Your task to perform on an android device: Open Yahoo.com Image 0: 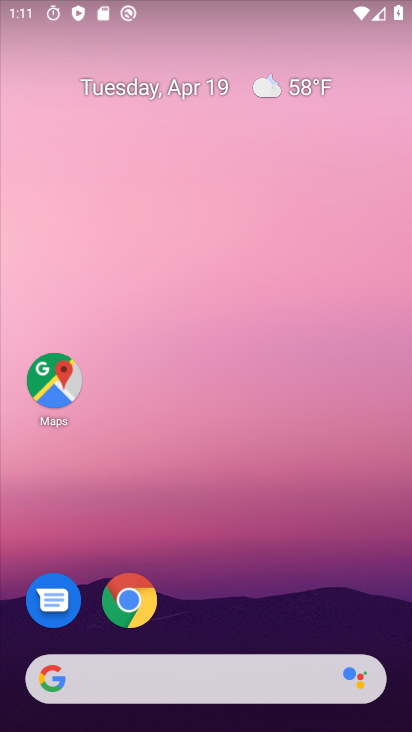
Step 0: drag from (220, 700) to (290, 241)
Your task to perform on an android device: Open Yahoo.com Image 1: 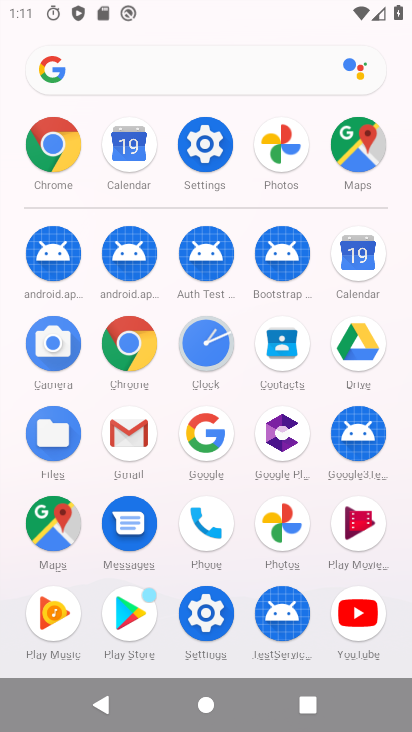
Step 1: click (66, 155)
Your task to perform on an android device: Open Yahoo.com Image 2: 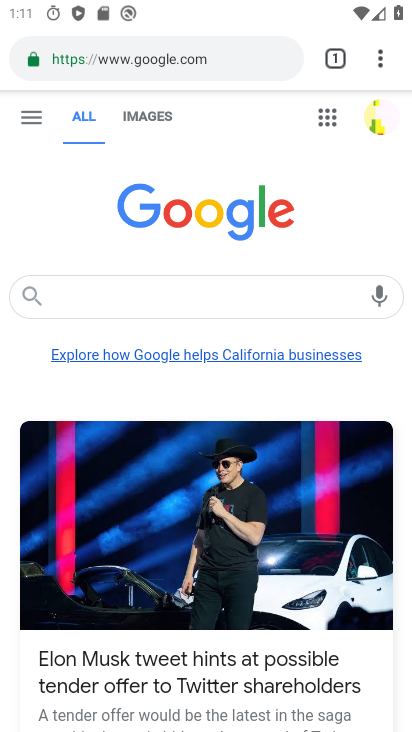
Step 2: click (327, 61)
Your task to perform on an android device: Open Yahoo.com Image 3: 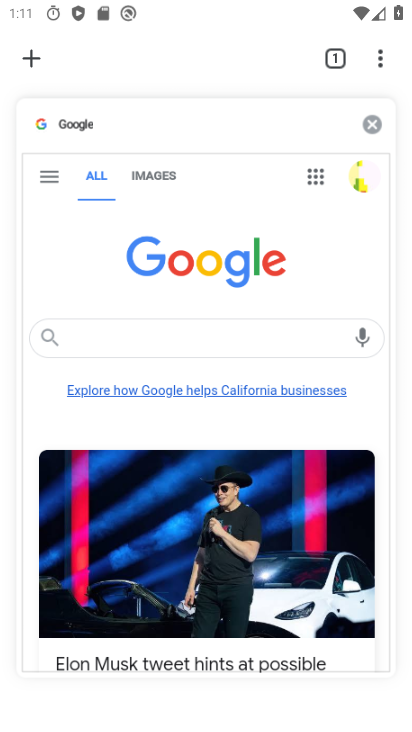
Step 3: click (35, 73)
Your task to perform on an android device: Open Yahoo.com Image 4: 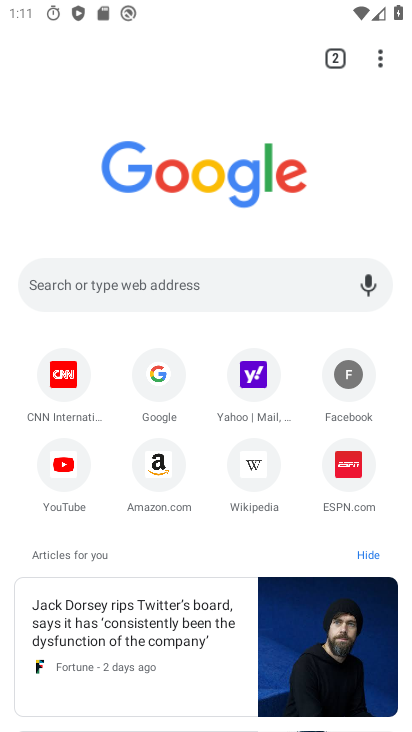
Step 4: click (275, 402)
Your task to perform on an android device: Open Yahoo.com Image 5: 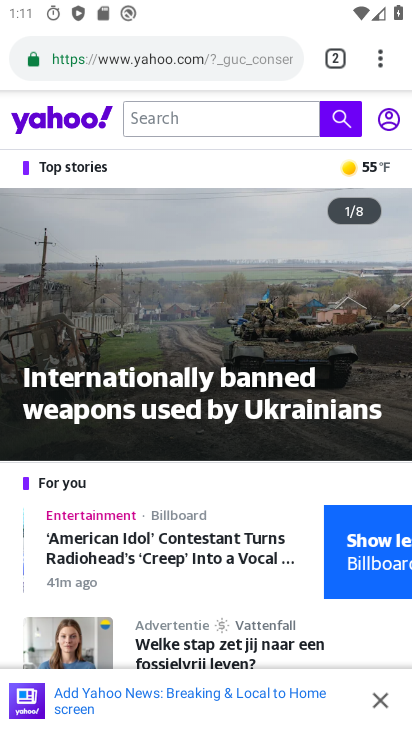
Step 5: task complete